Your task to perform on an android device: toggle javascript in the chrome app Image 0: 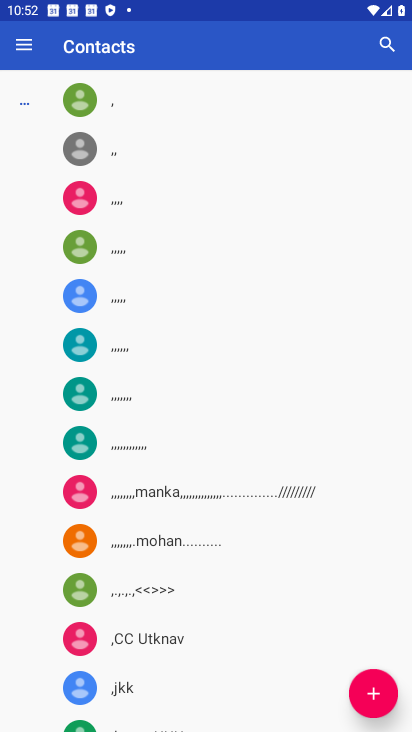
Step 0: press home button
Your task to perform on an android device: toggle javascript in the chrome app Image 1: 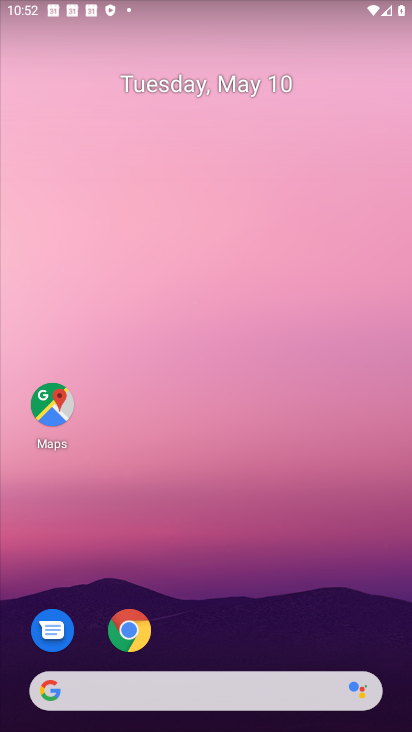
Step 1: click (129, 633)
Your task to perform on an android device: toggle javascript in the chrome app Image 2: 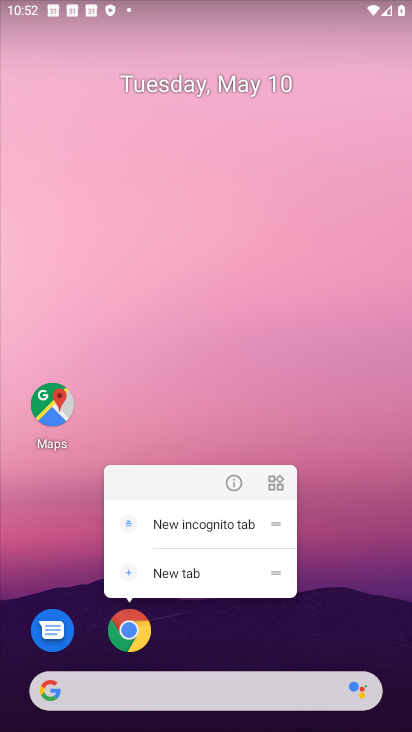
Step 2: click (139, 642)
Your task to perform on an android device: toggle javascript in the chrome app Image 3: 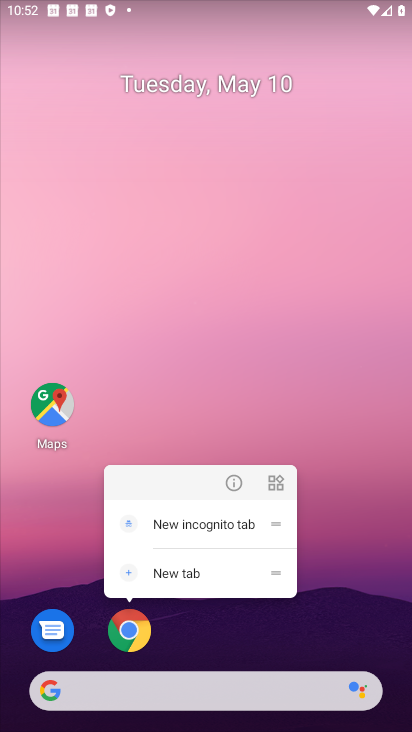
Step 3: click (139, 642)
Your task to perform on an android device: toggle javascript in the chrome app Image 4: 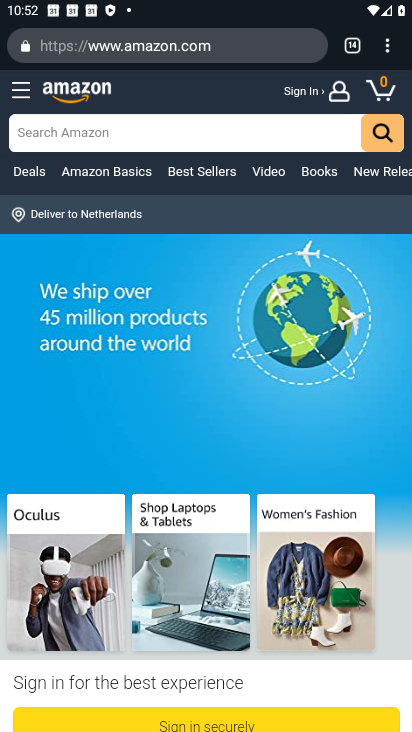
Step 4: click (389, 40)
Your task to perform on an android device: toggle javascript in the chrome app Image 5: 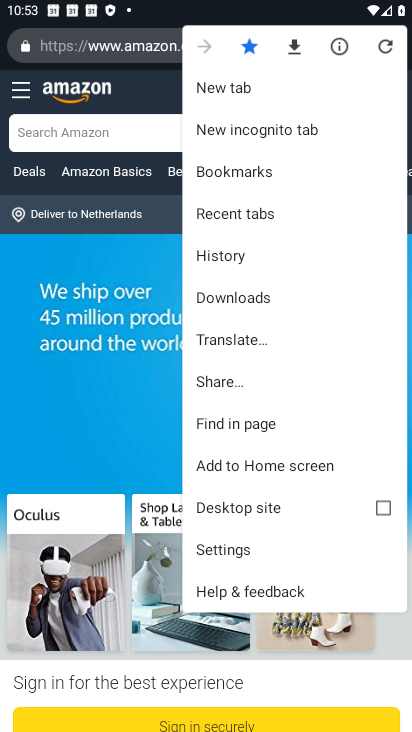
Step 5: click (218, 554)
Your task to perform on an android device: toggle javascript in the chrome app Image 6: 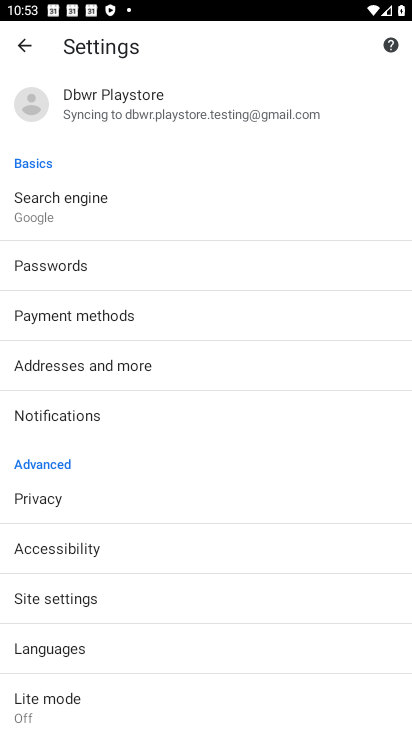
Step 6: click (84, 605)
Your task to perform on an android device: toggle javascript in the chrome app Image 7: 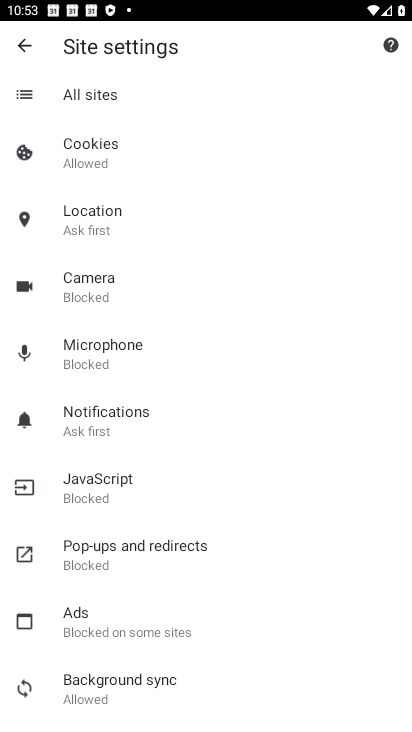
Step 7: click (132, 487)
Your task to perform on an android device: toggle javascript in the chrome app Image 8: 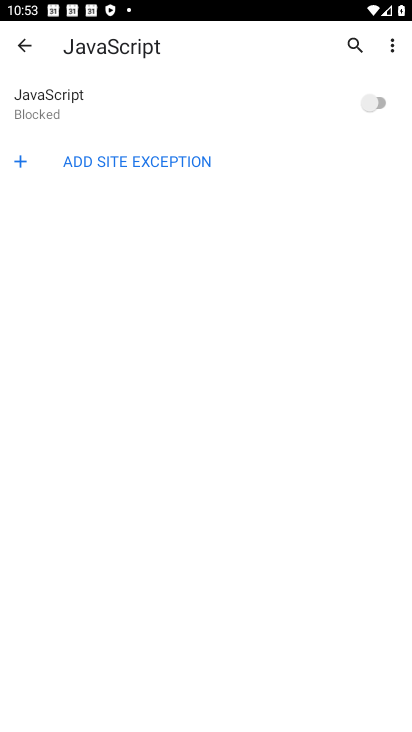
Step 8: click (377, 105)
Your task to perform on an android device: toggle javascript in the chrome app Image 9: 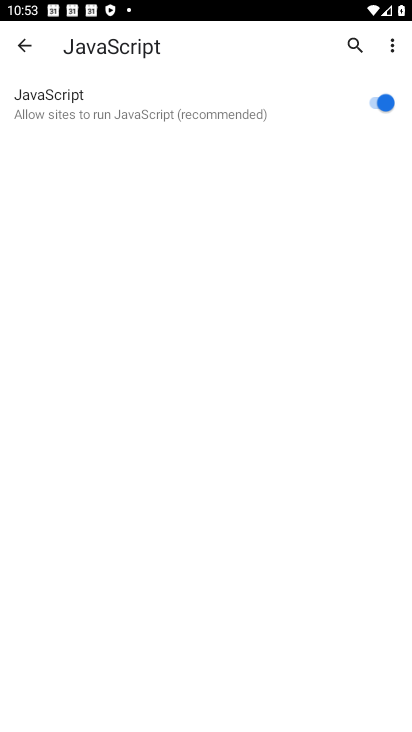
Step 9: task complete